Your task to perform on an android device: Open Google Maps and go to "Timeline" Image 0: 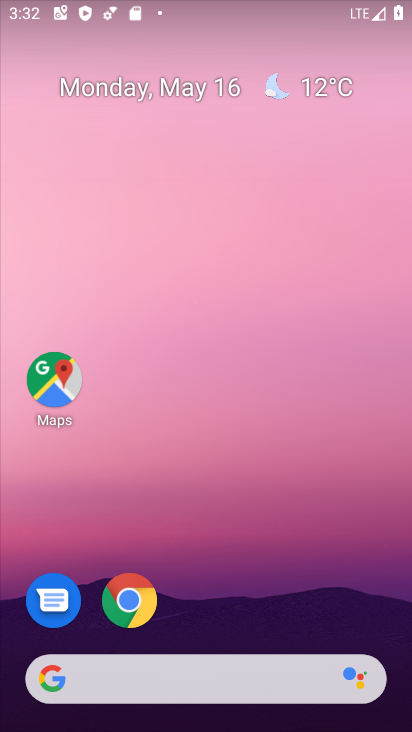
Step 0: drag from (243, 549) to (258, 67)
Your task to perform on an android device: Open Google Maps and go to "Timeline" Image 1: 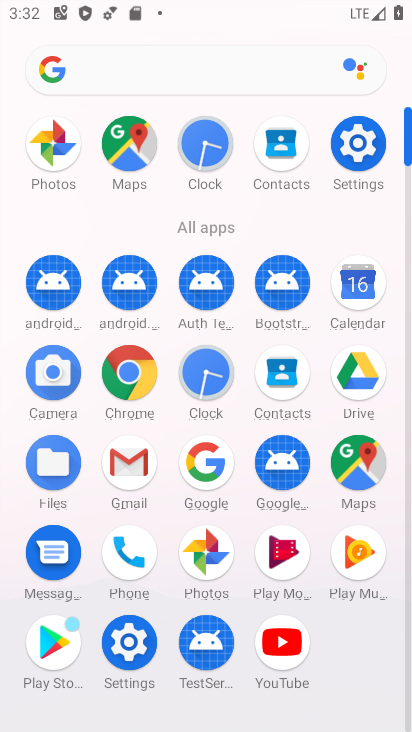
Step 1: click (365, 450)
Your task to perform on an android device: Open Google Maps and go to "Timeline" Image 2: 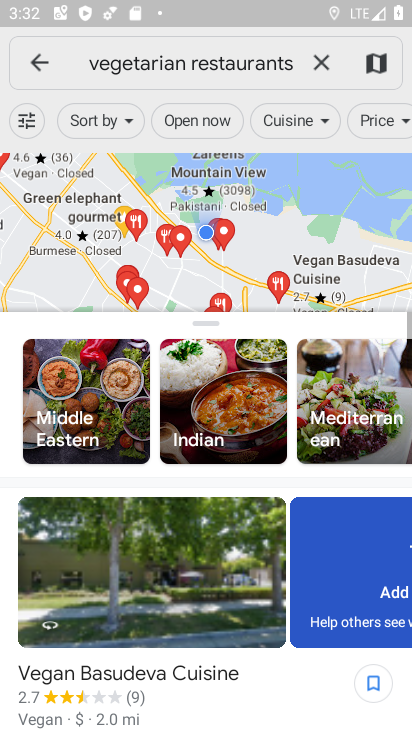
Step 2: click (42, 58)
Your task to perform on an android device: Open Google Maps and go to "Timeline" Image 3: 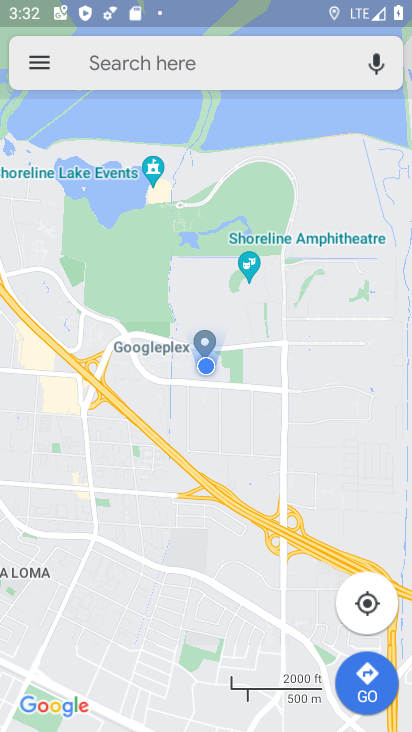
Step 3: click (42, 58)
Your task to perform on an android device: Open Google Maps and go to "Timeline" Image 4: 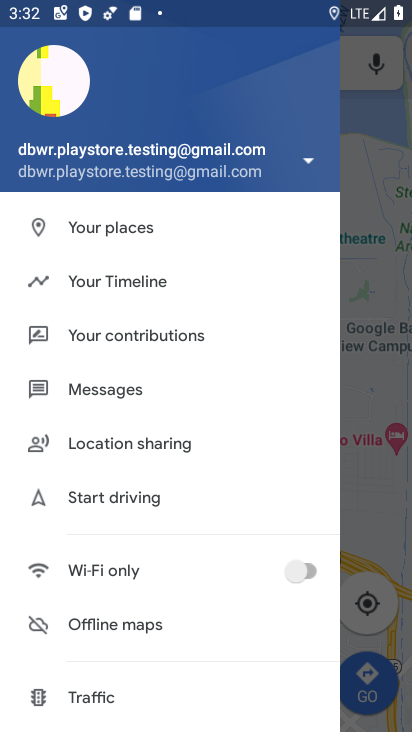
Step 4: click (148, 282)
Your task to perform on an android device: Open Google Maps and go to "Timeline" Image 5: 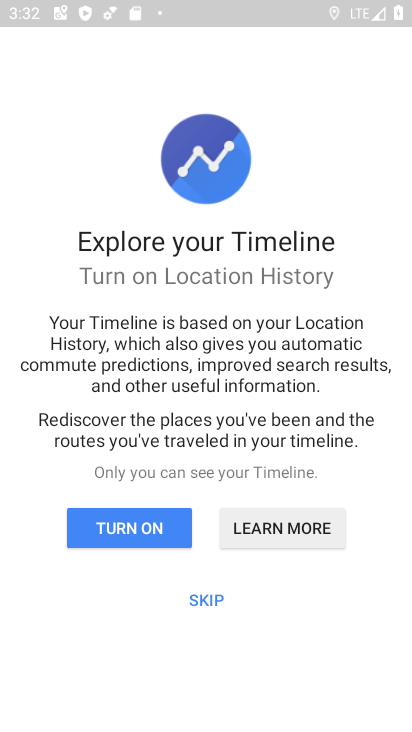
Step 5: click (164, 532)
Your task to perform on an android device: Open Google Maps and go to "Timeline" Image 6: 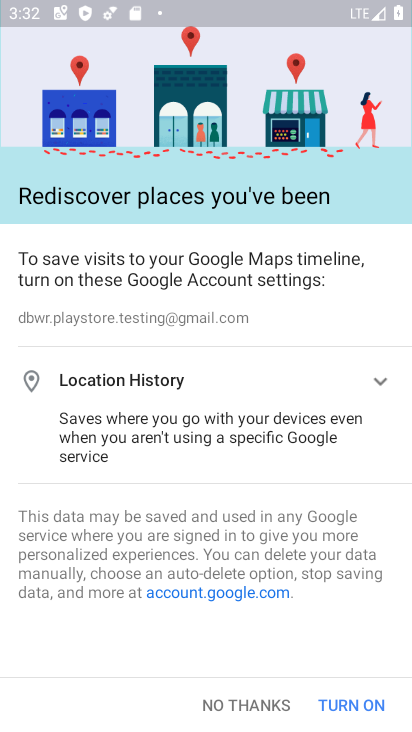
Step 6: click (218, 709)
Your task to perform on an android device: Open Google Maps and go to "Timeline" Image 7: 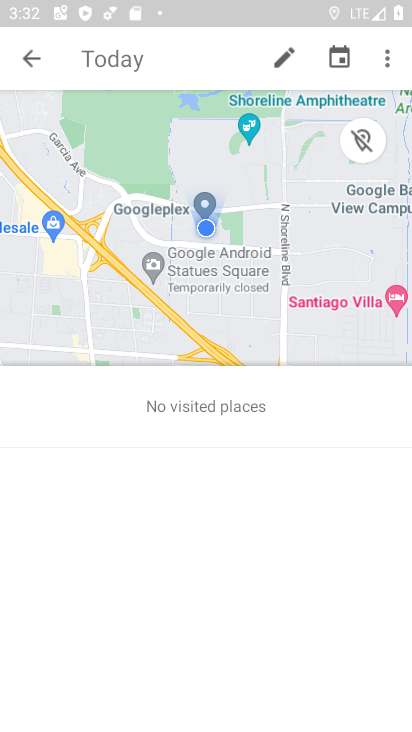
Step 7: task complete